Your task to perform on an android device: see tabs open on other devices in the chrome app Image 0: 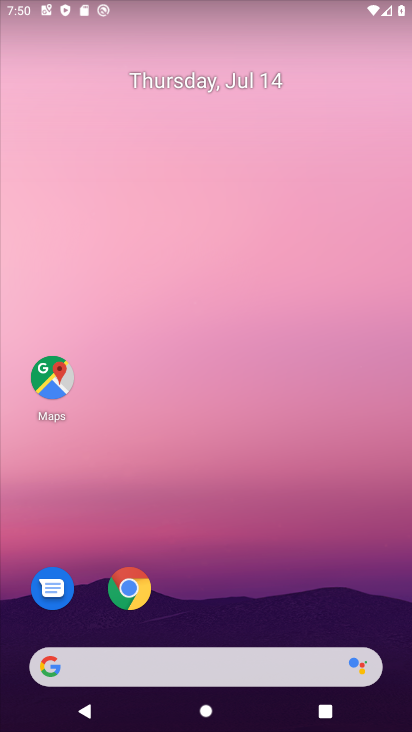
Step 0: drag from (294, 328) to (225, 1)
Your task to perform on an android device: see tabs open on other devices in the chrome app Image 1: 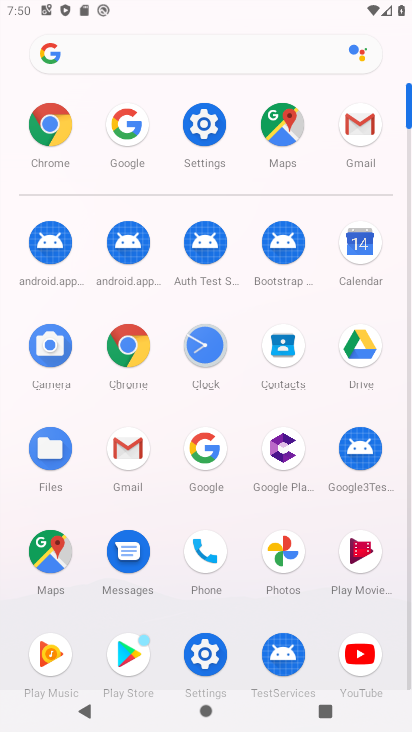
Step 1: click (132, 325)
Your task to perform on an android device: see tabs open on other devices in the chrome app Image 2: 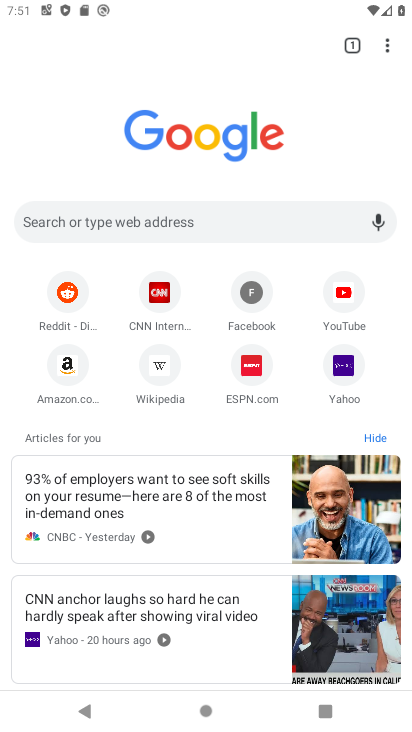
Step 2: task complete